Your task to perform on an android device: Go to Maps Image 0: 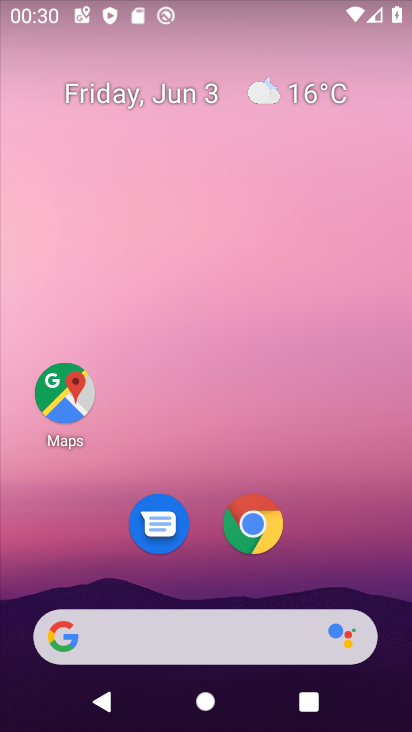
Step 0: click (72, 395)
Your task to perform on an android device: Go to Maps Image 1: 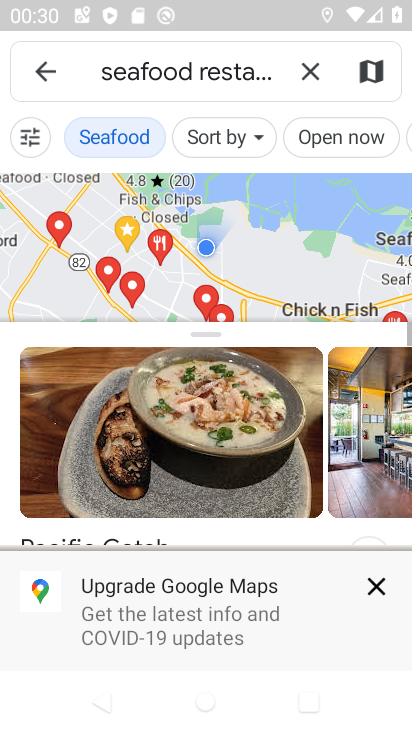
Step 1: click (306, 71)
Your task to perform on an android device: Go to Maps Image 2: 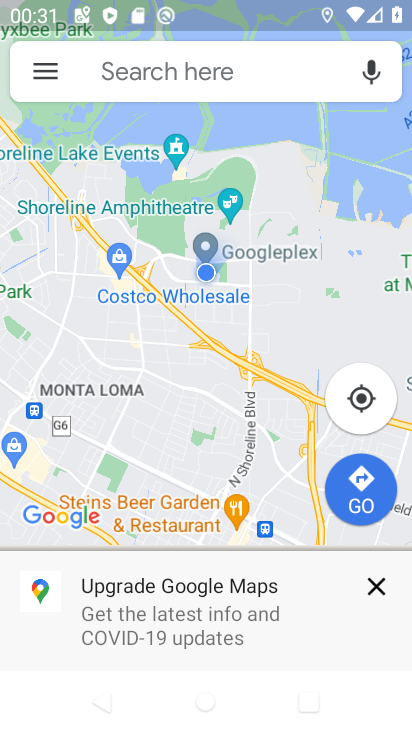
Step 2: task complete